Your task to perform on an android device: View the shopping cart on newegg. Search for jbl flip 4 on newegg, select the first entry, and add it to the cart. Image 0: 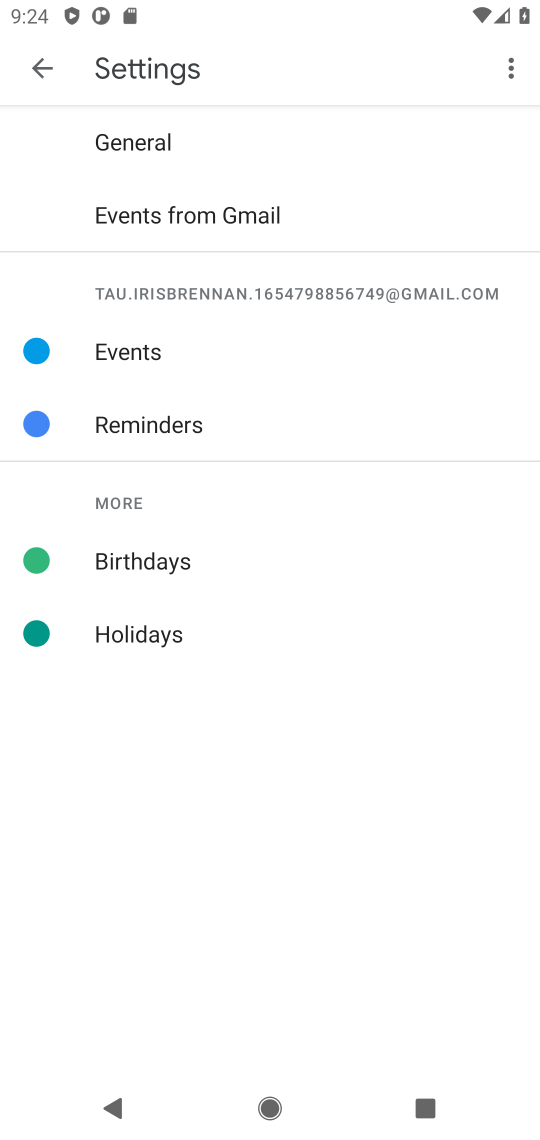
Step 0: press home button
Your task to perform on an android device: View the shopping cart on newegg. Search for jbl flip 4 on newegg, select the first entry, and add it to the cart. Image 1: 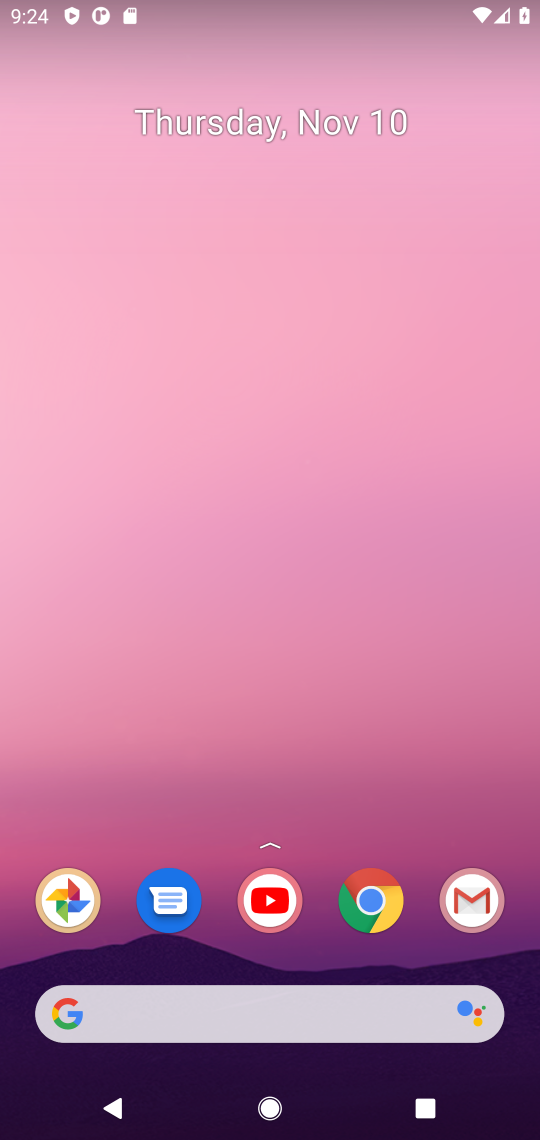
Step 1: click (367, 909)
Your task to perform on an android device: View the shopping cart on newegg. Search for jbl flip 4 on newegg, select the first entry, and add it to the cart. Image 2: 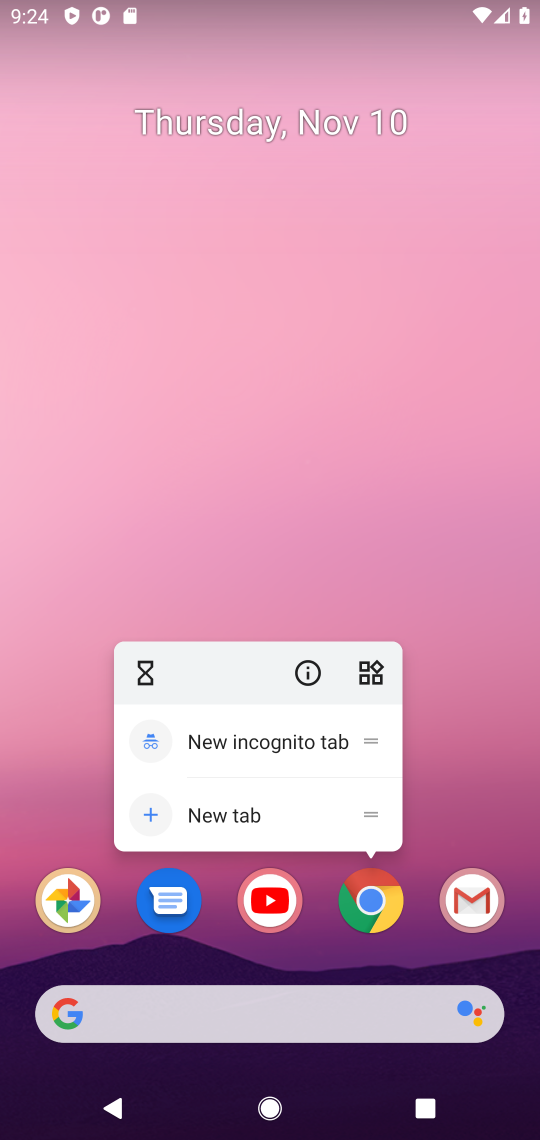
Step 2: click (376, 900)
Your task to perform on an android device: View the shopping cart on newegg. Search for jbl flip 4 on newegg, select the first entry, and add it to the cart. Image 3: 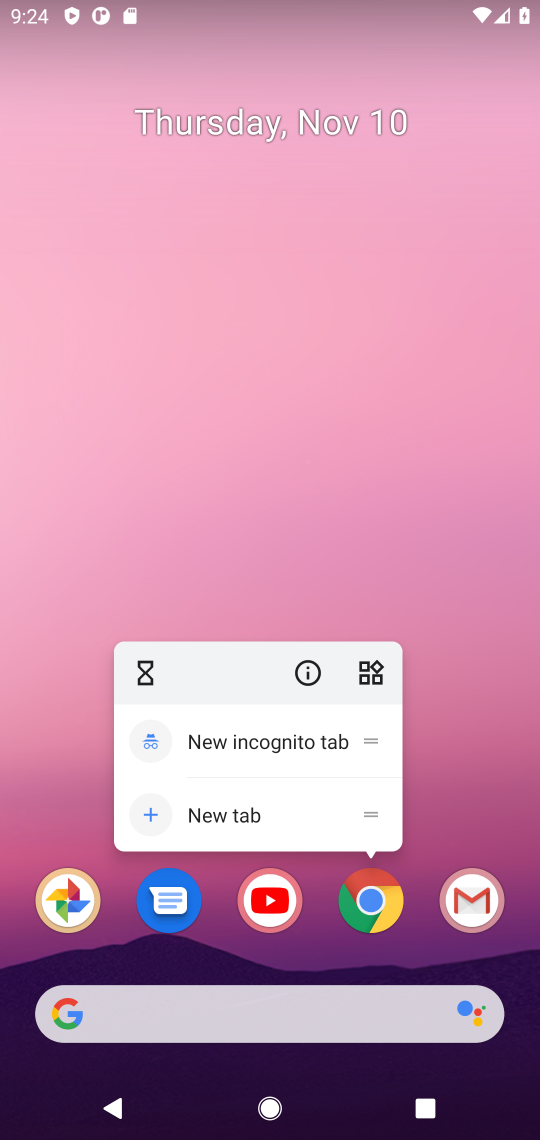
Step 3: click (376, 900)
Your task to perform on an android device: View the shopping cart on newegg. Search for jbl flip 4 on newegg, select the first entry, and add it to the cart. Image 4: 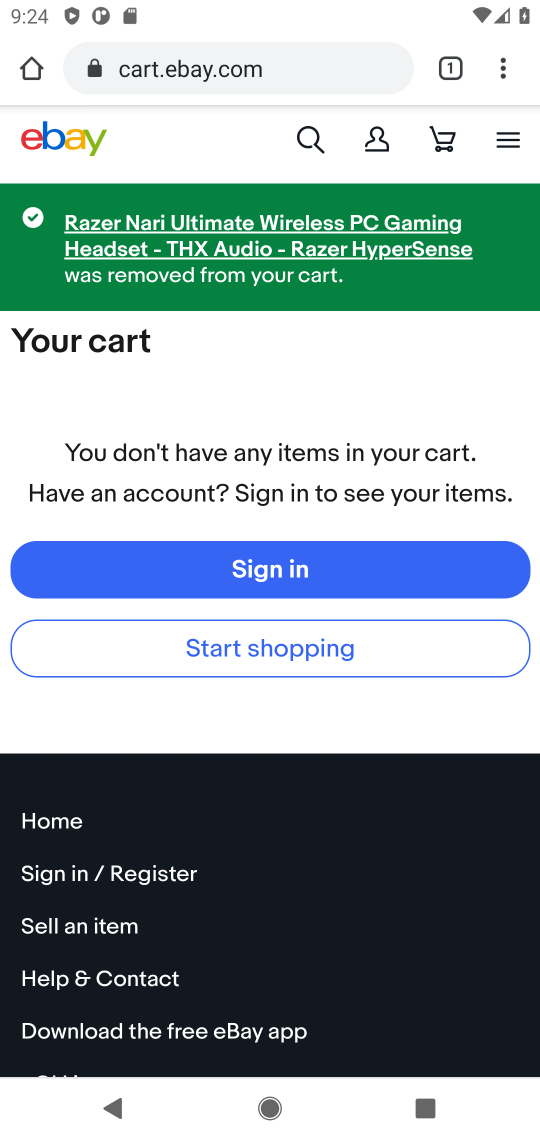
Step 4: click (306, 64)
Your task to perform on an android device: View the shopping cart on newegg. Search for jbl flip 4 on newegg, select the first entry, and add it to the cart. Image 5: 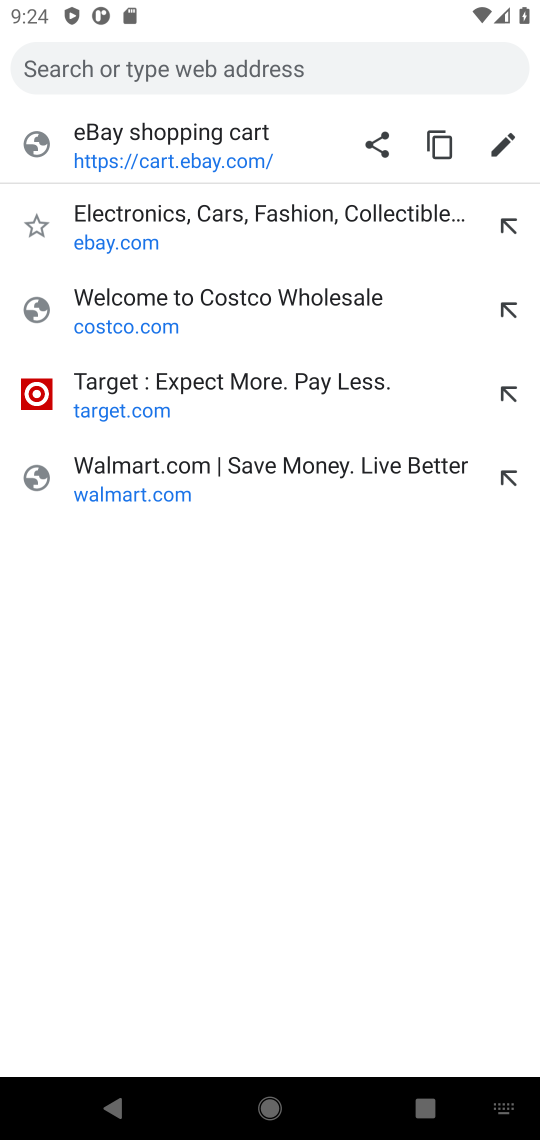
Step 5: type "newegg"
Your task to perform on an android device: View the shopping cart on newegg. Search for jbl flip 4 on newegg, select the first entry, and add it to the cart. Image 6: 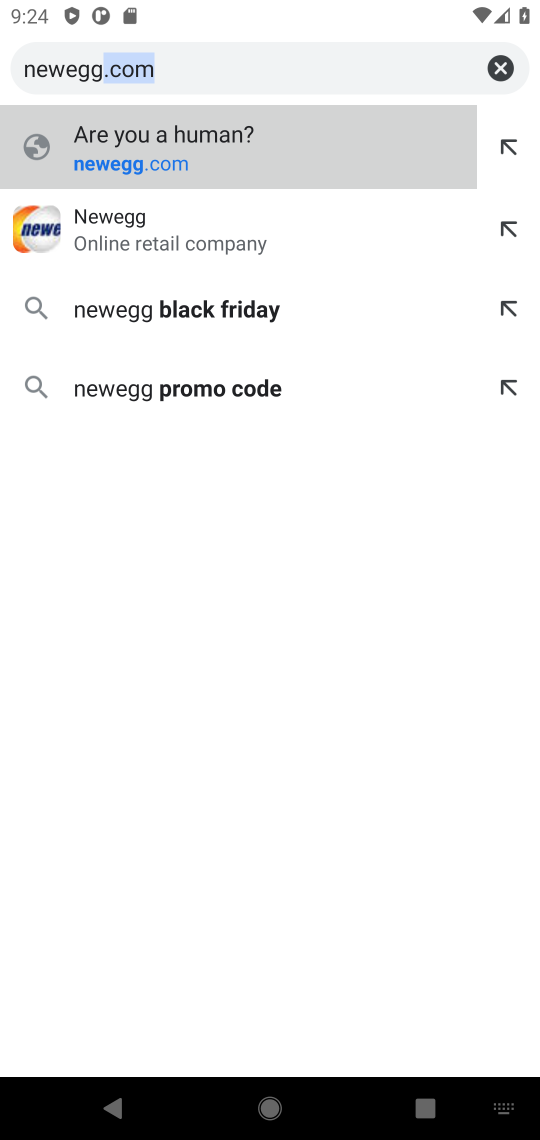
Step 6: press enter
Your task to perform on an android device: View the shopping cart on newegg. Search for jbl flip 4 on newegg, select the first entry, and add it to the cart. Image 7: 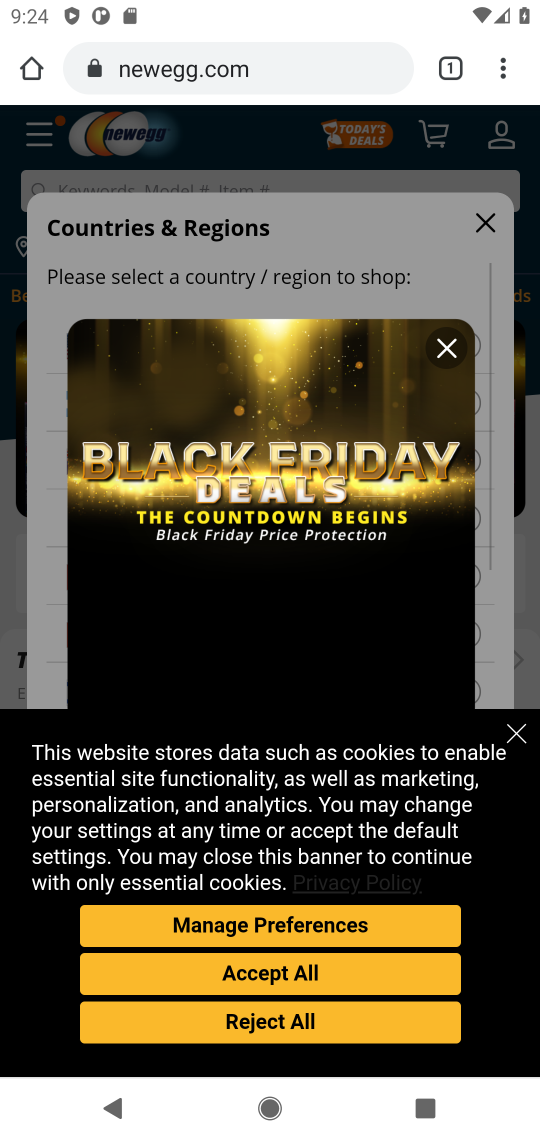
Step 7: click (490, 222)
Your task to perform on an android device: View the shopping cart on newegg. Search for jbl flip 4 on newegg, select the first entry, and add it to the cart. Image 8: 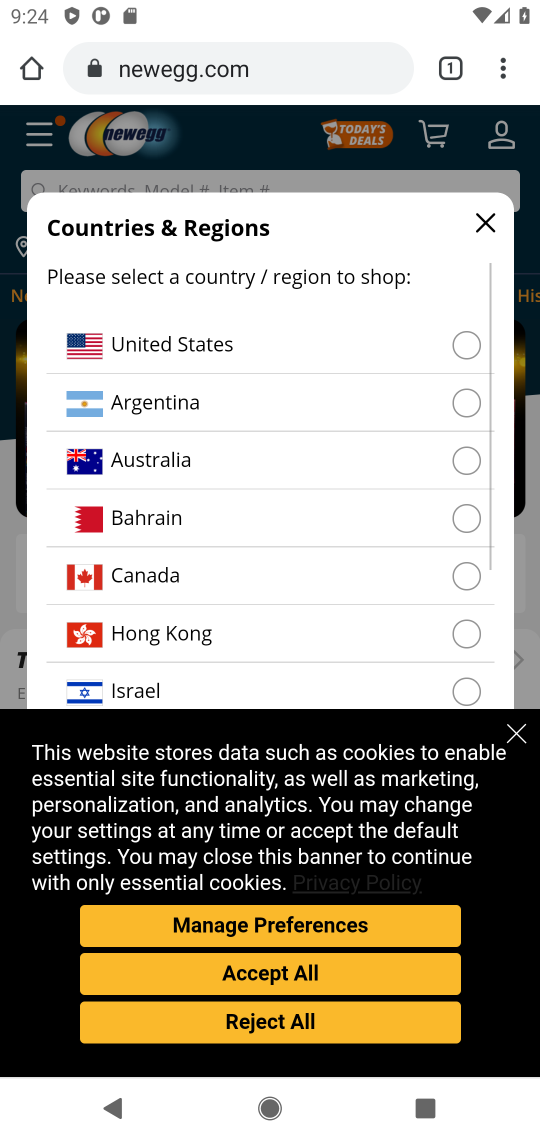
Step 8: click (485, 224)
Your task to perform on an android device: View the shopping cart on newegg. Search for jbl flip 4 on newegg, select the first entry, and add it to the cart. Image 9: 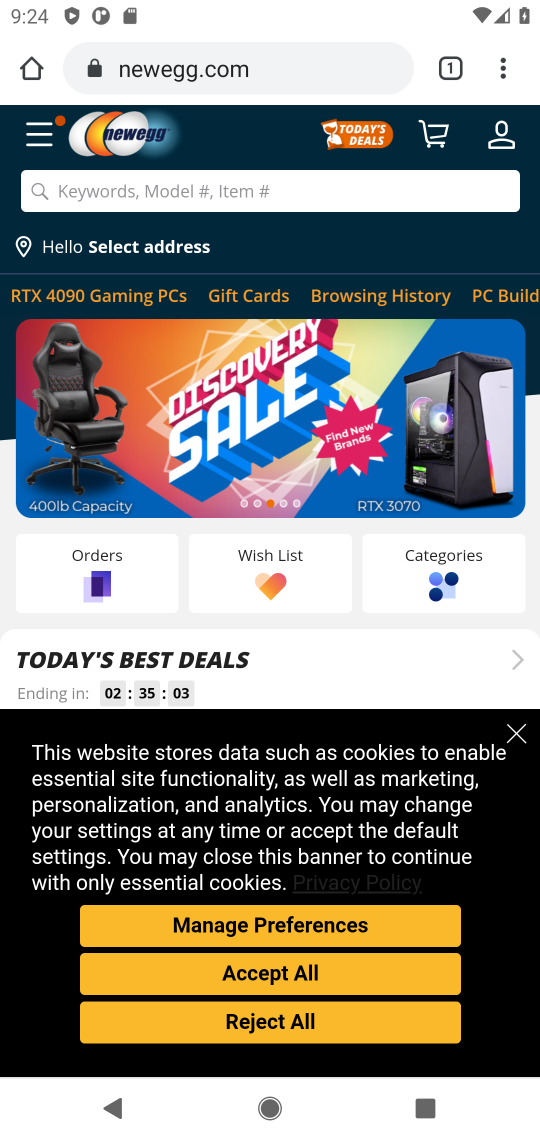
Step 9: click (519, 737)
Your task to perform on an android device: View the shopping cart on newegg. Search for jbl flip 4 on newegg, select the first entry, and add it to the cart. Image 10: 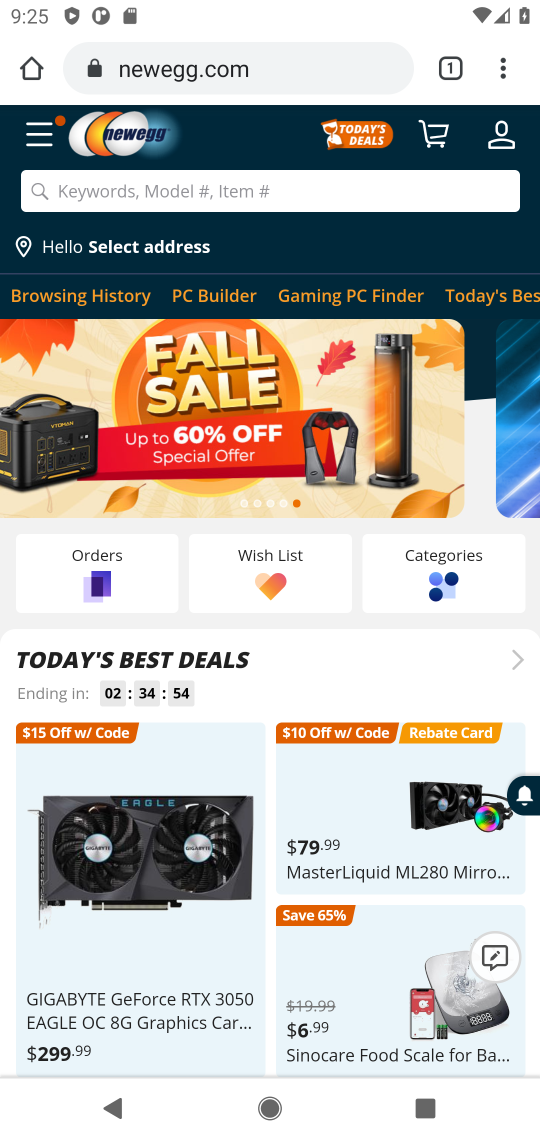
Step 10: click (126, 191)
Your task to perform on an android device: View the shopping cart on newegg. Search for jbl flip 4 on newegg, select the first entry, and add it to the cart. Image 11: 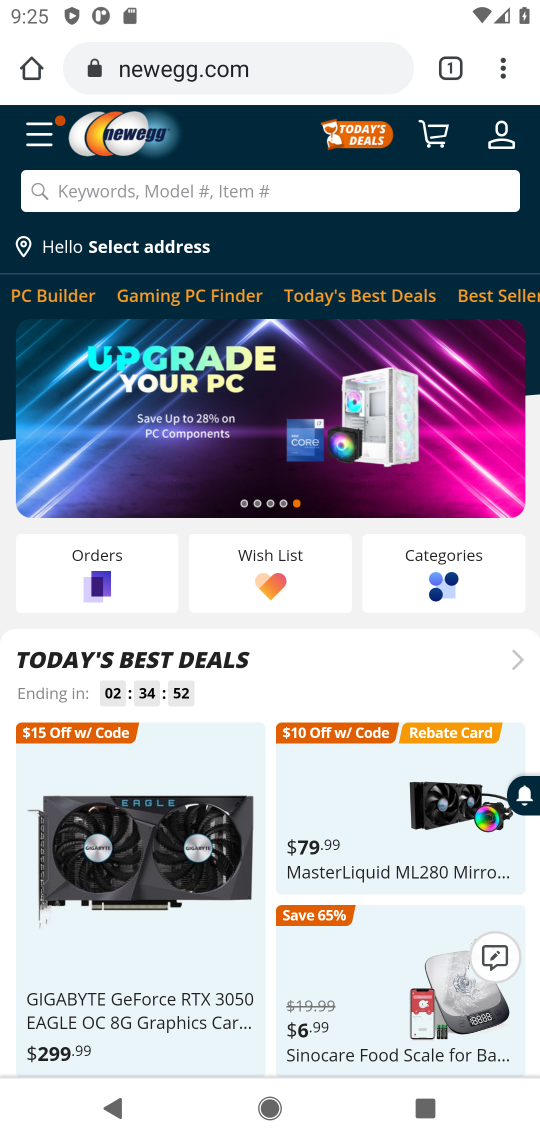
Step 11: click (92, 187)
Your task to perform on an android device: View the shopping cart on newegg. Search for jbl flip 4 on newegg, select the first entry, and add it to the cart. Image 12: 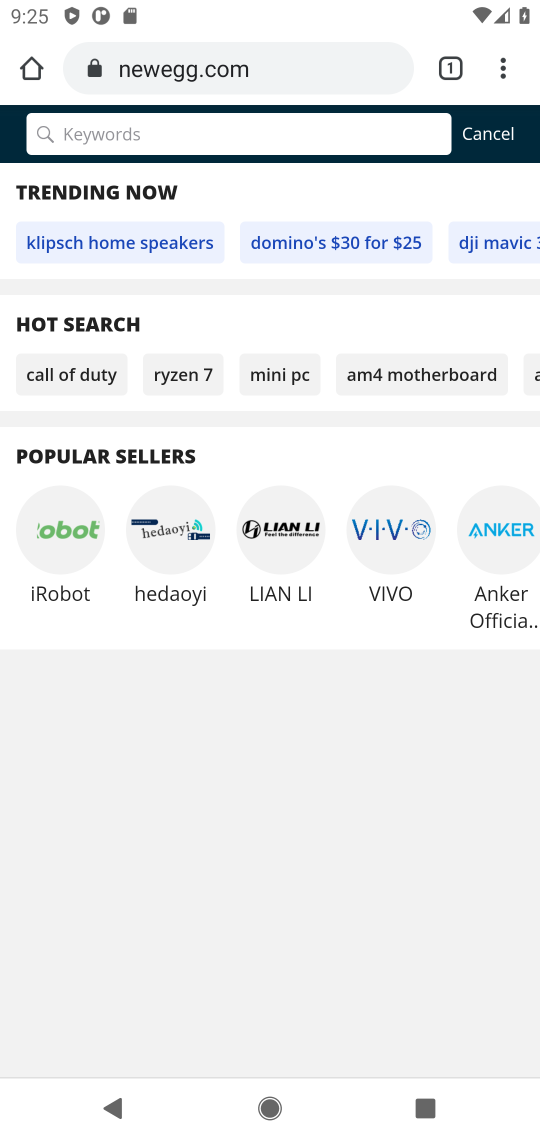
Step 12: click (137, 141)
Your task to perform on an android device: View the shopping cart on newegg. Search for jbl flip 4 on newegg, select the first entry, and add it to the cart. Image 13: 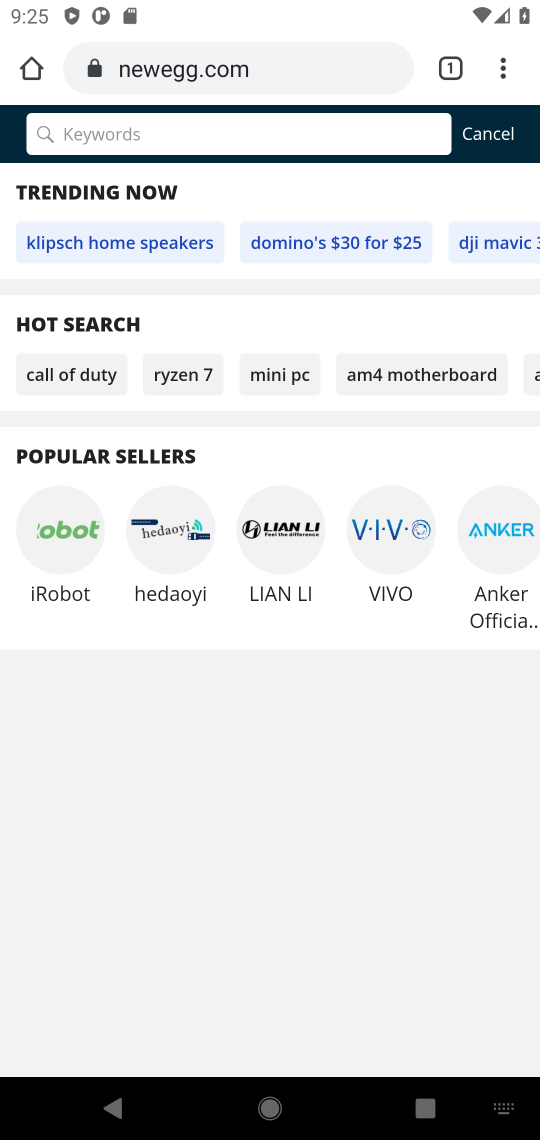
Step 13: type "jbl flip 4"
Your task to perform on an android device: View the shopping cart on newegg. Search for jbl flip 4 on newegg, select the first entry, and add it to the cart. Image 14: 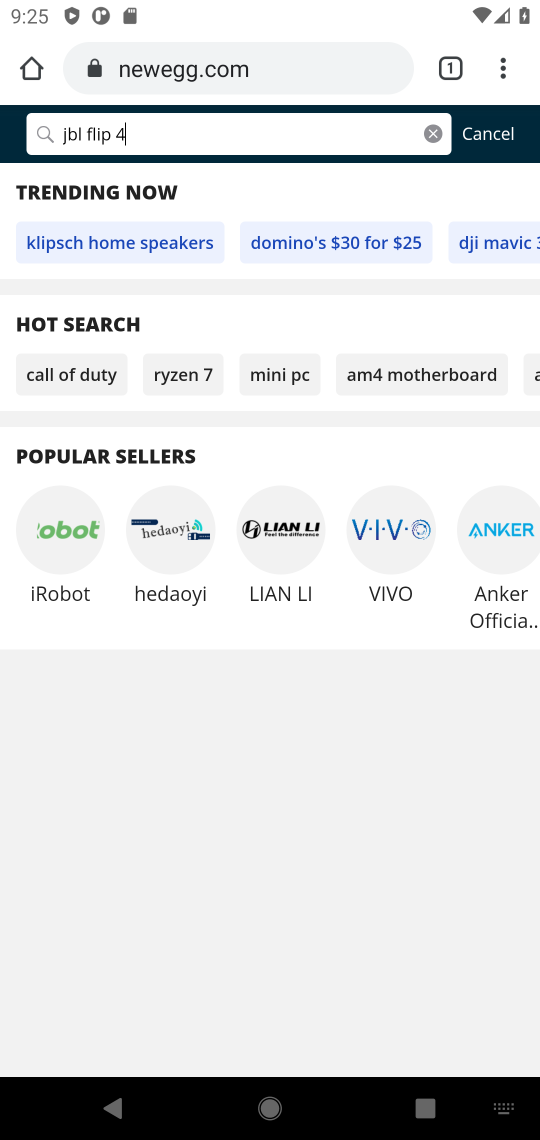
Step 14: press enter
Your task to perform on an android device: View the shopping cart on newegg. Search for jbl flip 4 on newegg, select the first entry, and add it to the cart. Image 15: 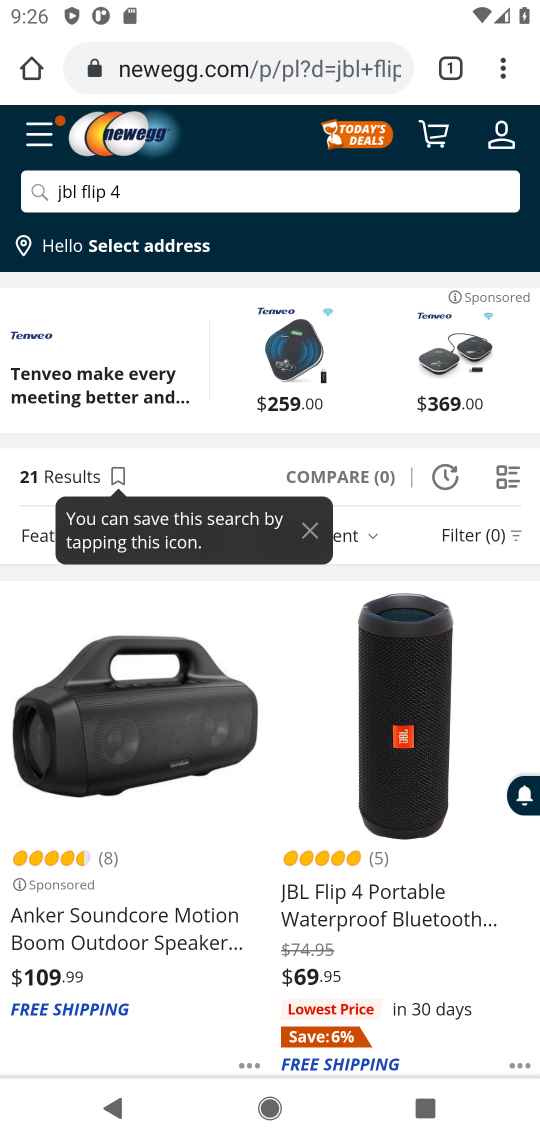
Step 15: task complete